Your task to perform on an android device: Open Chrome and go to settings Image 0: 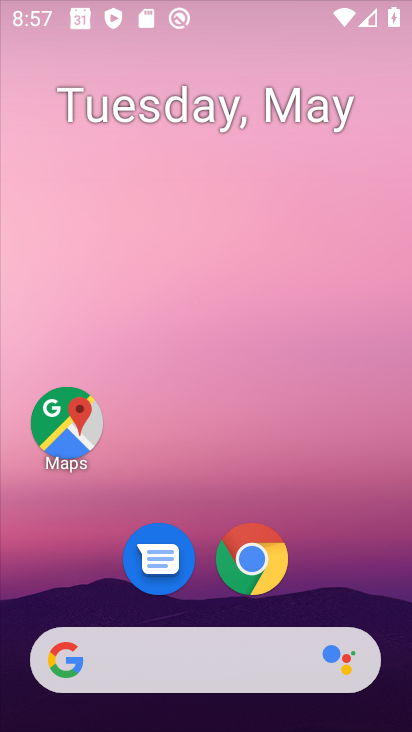
Step 0: drag from (359, 621) to (163, 96)
Your task to perform on an android device: Open Chrome and go to settings Image 1: 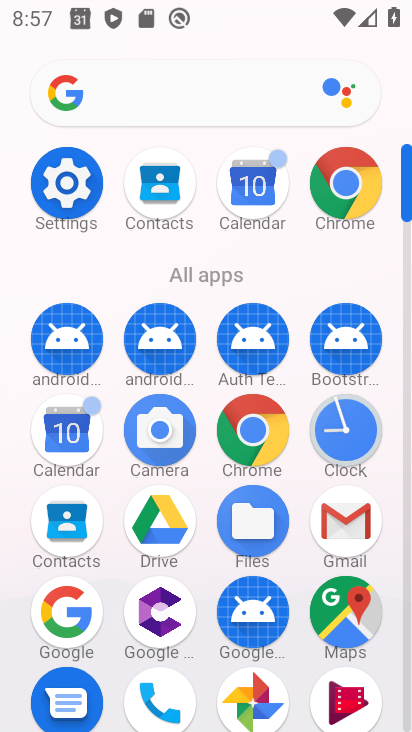
Step 1: click (65, 190)
Your task to perform on an android device: Open Chrome and go to settings Image 2: 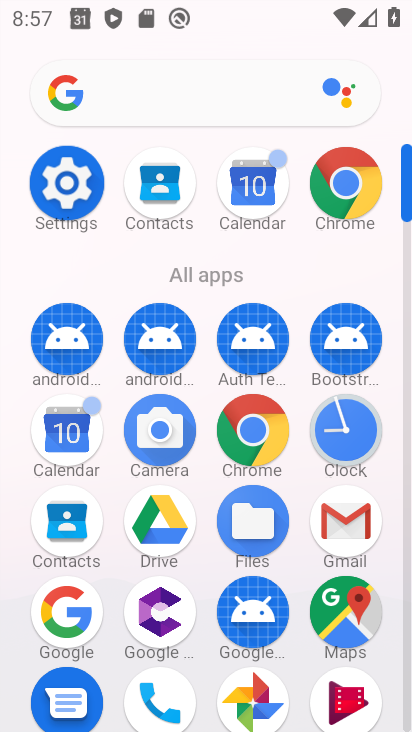
Step 2: click (68, 190)
Your task to perform on an android device: Open Chrome and go to settings Image 3: 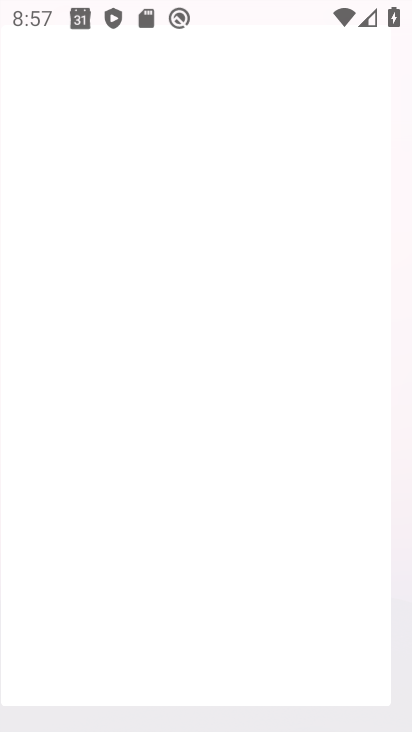
Step 3: click (68, 190)
Your task to perform on an android device: Open Chrome and go to settings Image 4: 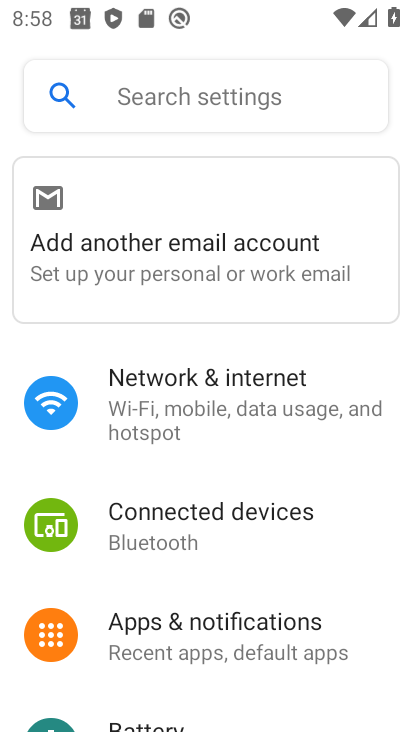
Step 4: press back button
Your task to perform on an android device: Open Chrome and go to settings Image 5: 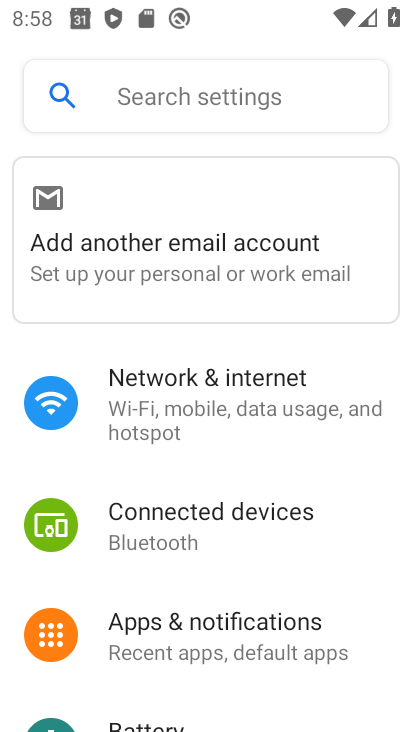
Step 5: press back button
Your task to perform on an android device: Open Chrome and go to settings Image 6: 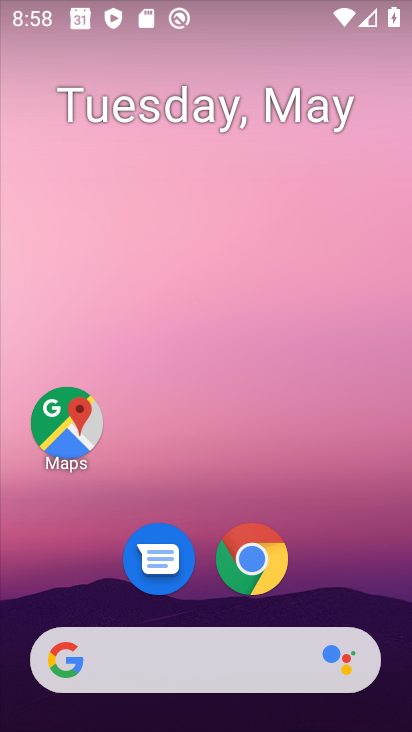
Step 6: drag from (338, 611) to (67, 8)
Your task to perform on an android device: Open Chrome and go to settings Image 7: 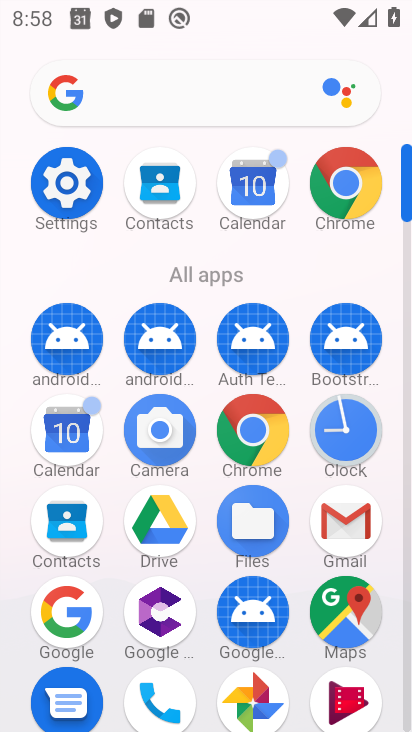
Step 7: click (350, 204)
Your task to perform on an android device: Open Chrome and go to settings Image 8: 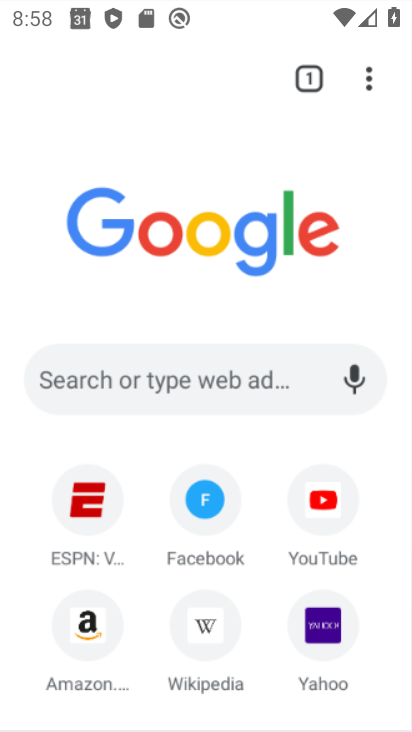
Step 8: click (350, 204)
Your task to perform on an android device: Open Chrome and go to settings Image 9: 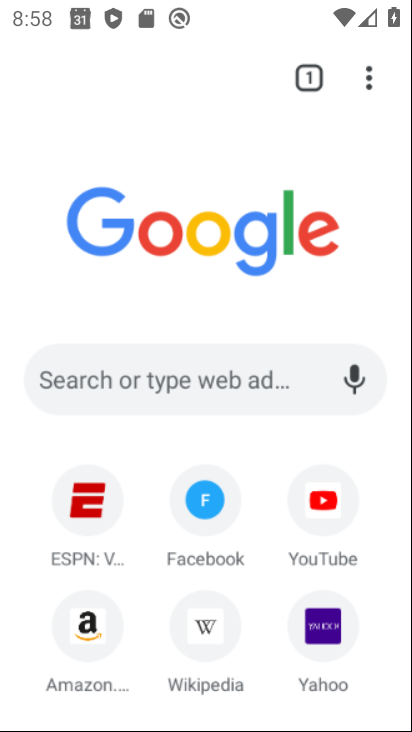
Step 9: click (350, 204)
Your task to perform on an android device: Open Chrome and go to settings Image 10: 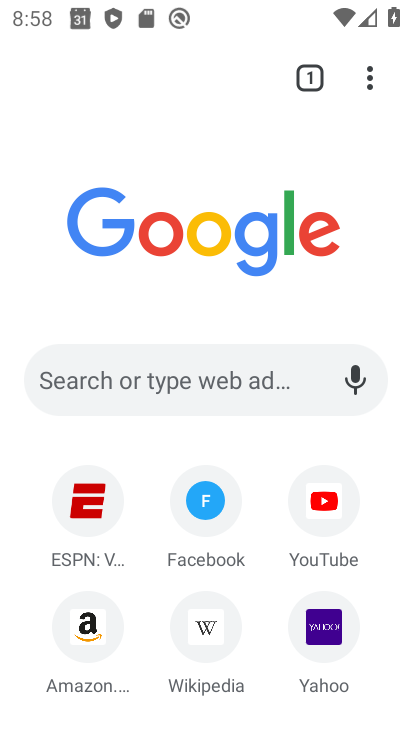
Step 10: click (363, 86)
Your task to perform on an android device: Open Chrome and go to settings Image 11: 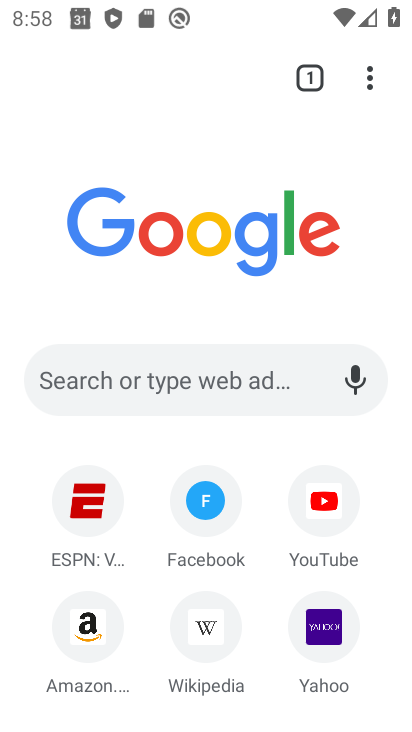
Step 11: drag from (368, 78) to (91, 618)
Your task to perform on an android device: Open Chrome and go to settings Image 12: 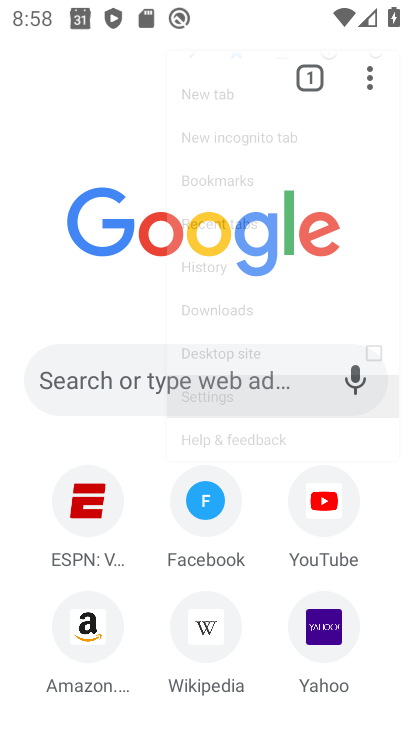
Step 12: click (92, 617)
Your task to perform on an android device: Open Chrome and go to settings Image 13: 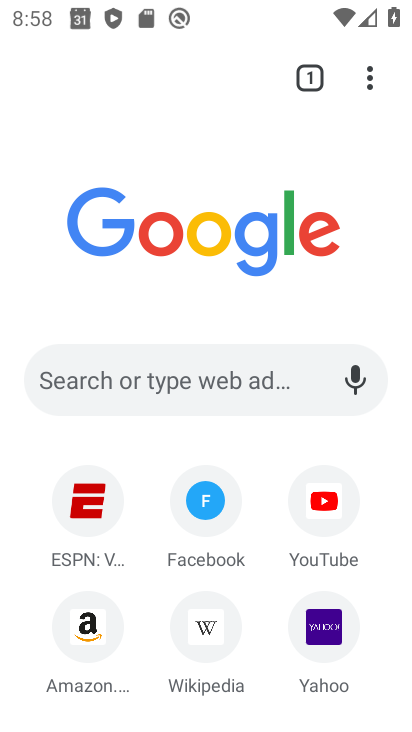
Step 13: click (92, 617)
Your task to perform on an android device: Open Chrome and go to settings Image 14: 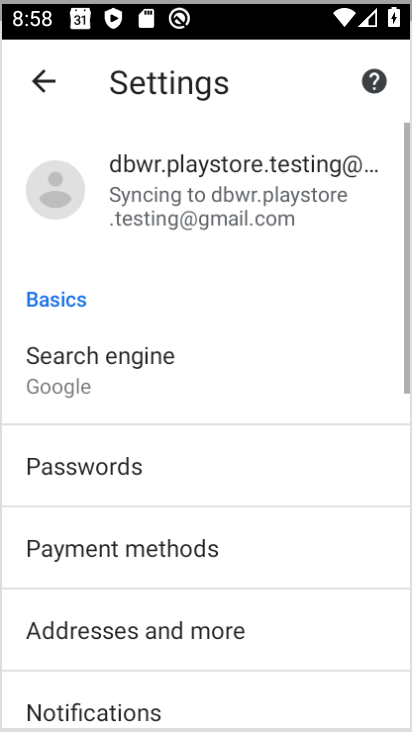
Step 14: click (90, 612)
Your task to perform on an android device: Open Chrome and go to settings Image 15: 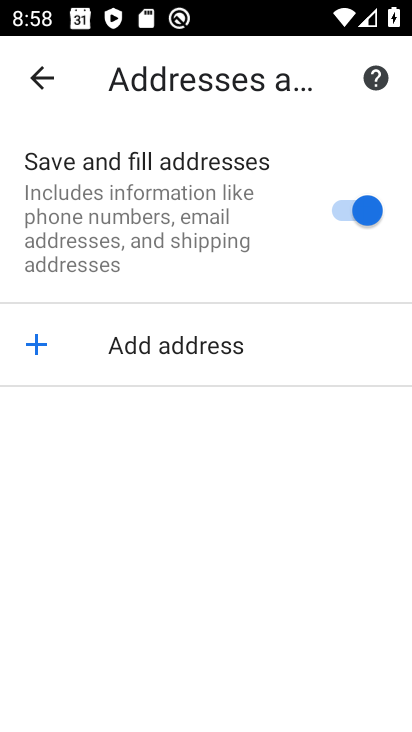
Step 15: click (39, 80)
Your task to perform on an android device: Open Chrome and go to settings Image 16: 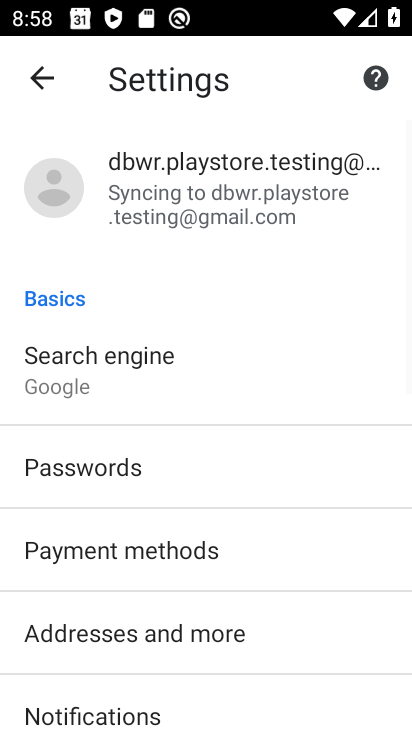
Step 16: task complete